Your task to perform on an android device: refresh tabs in the chrome app Image 0: 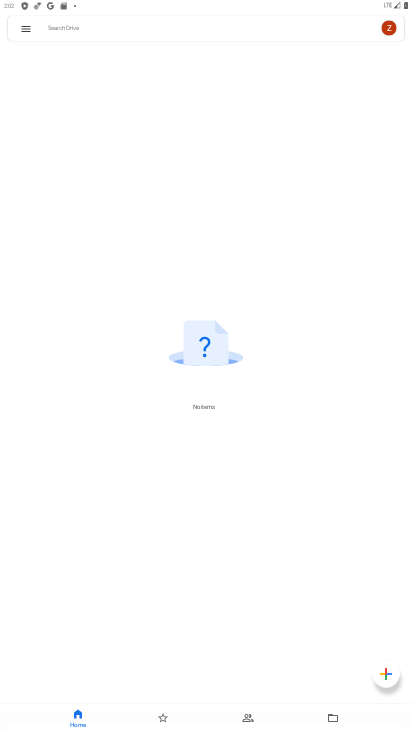
Step 0: drag from (198, 541) to (221, 369)
Your task to perform on an android device: refresh tabs in the chrome app Image 1: 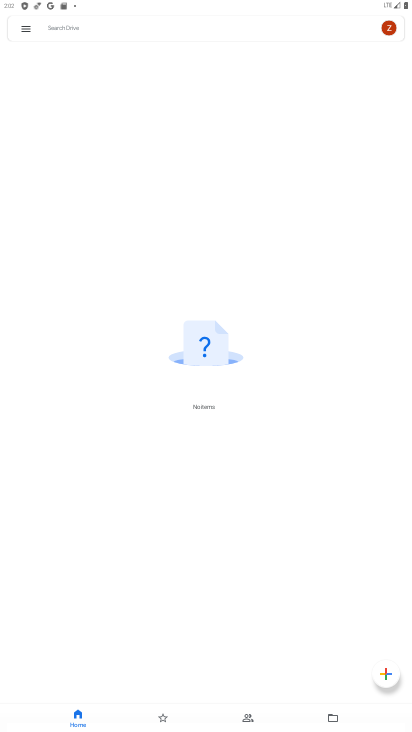
Step 1: press home button
Your task to perform on an android device: refresh tabs in the chrome app Image 2: 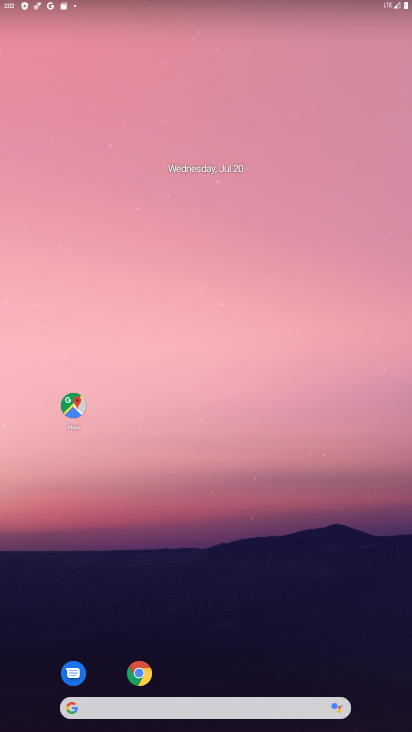
Step 2: drag from (199, 677) to (306, 0)
Your task to perform on an android device: refresh tabs in the chrome app Image 3: 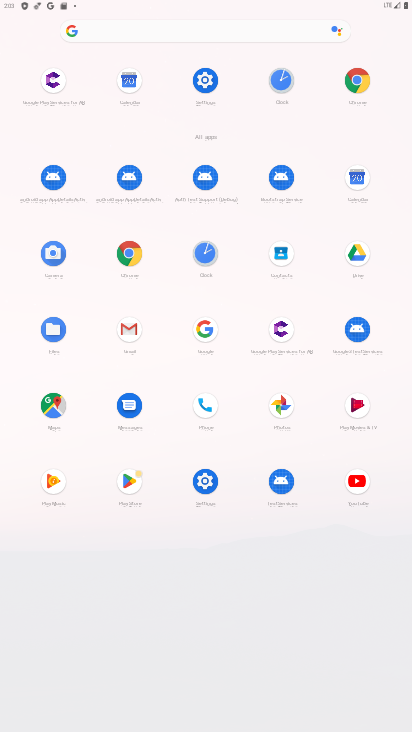
Step 3: click (130, 256)
Your task to perform on an android device: refresh tabs in the chrome app Image 4: 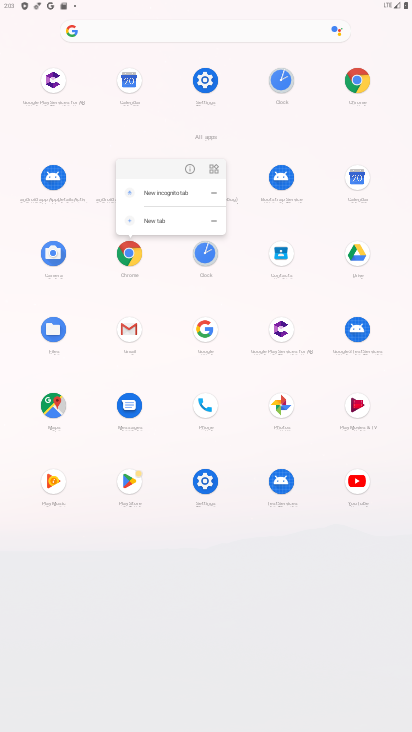
Step 4: click (187, 167)
Your task to perform on an android device: refresh tabs in the chrome app Image 5: 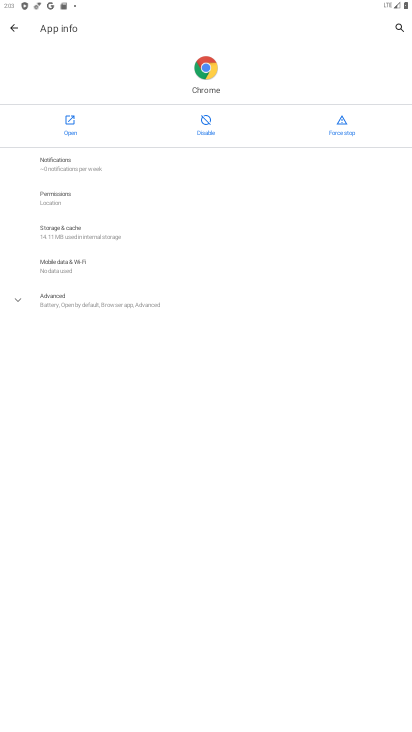
Step 5: click (72, 121)
Your task to perform on an android device: refresh tabs in the chrome app Image 6: 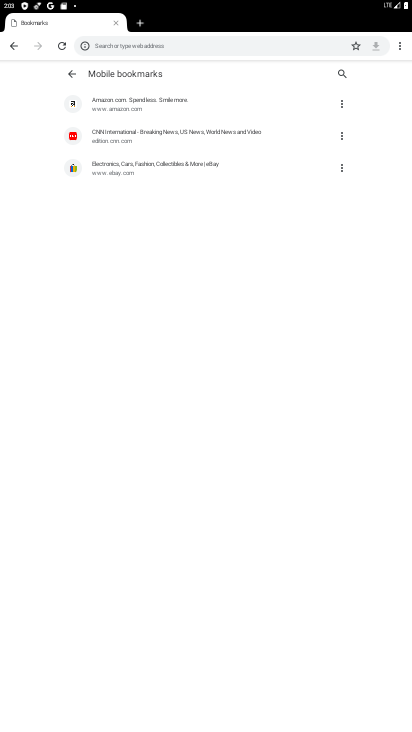
Step 6: click (56, 46)
Your task to perform on an android device: refresh tabs in the chrome app Image 7: 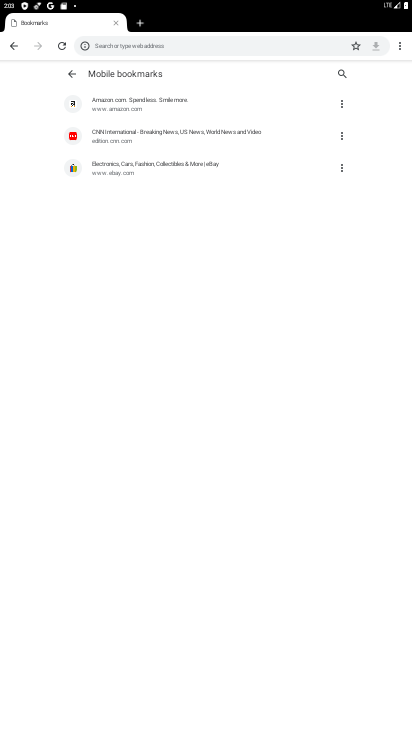
Step 7: task complete